Your task to perform on an android device: turn smart compose on in the gmail app Image 0: 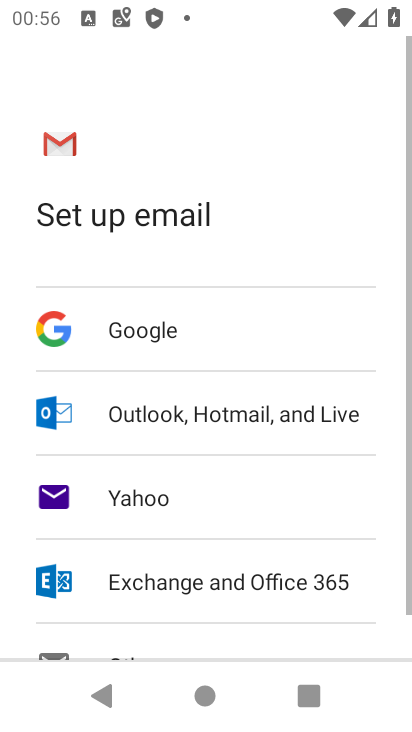
Step 0: press home button
Your task to perform on an android device: turn smart compose on in the gmail app Image 1: 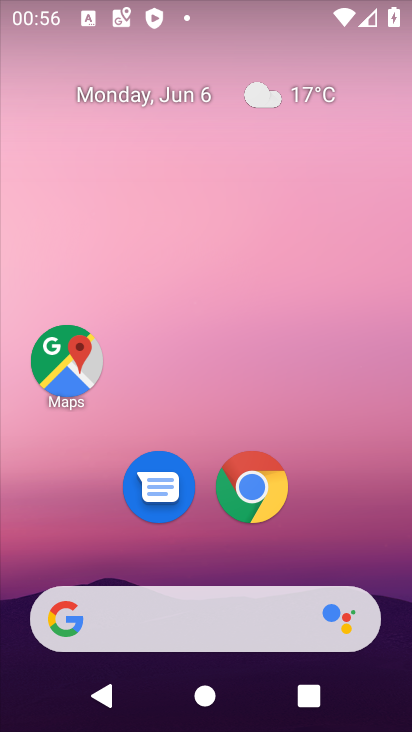
Step 1: drag from (397, 608) to (353, 113)
Your task to perform on an android device: turn smart compose on in the gmail app Image 2: 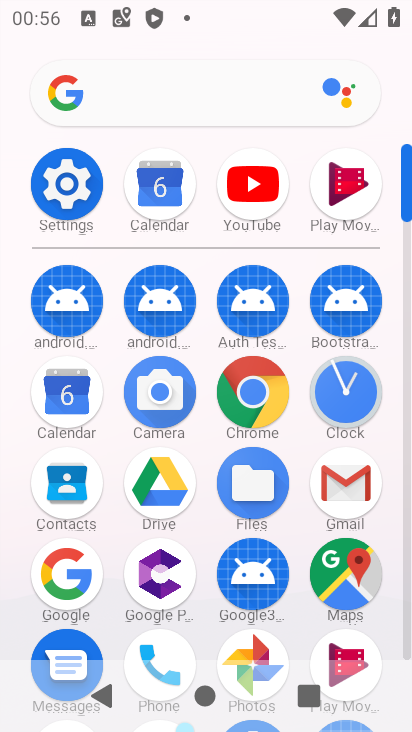
Step 2: click (405, 616)
Your task to perform on an android device: turn smart compose on in the gmail app Image 3: 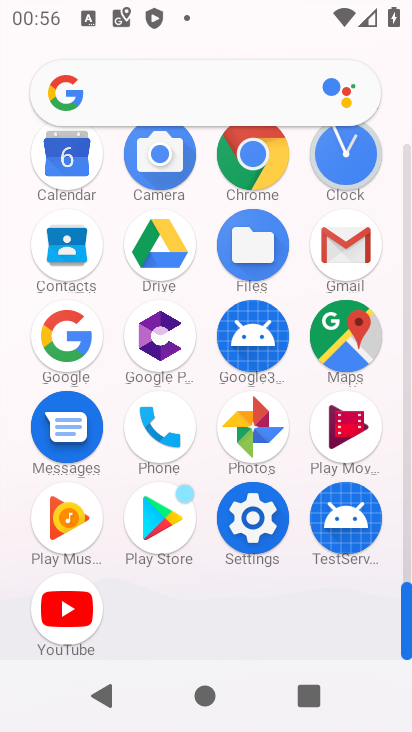
Step 3: click (346, 241)
Your task to perform on an android device: turn smart compose on in the gmail app Image 4: 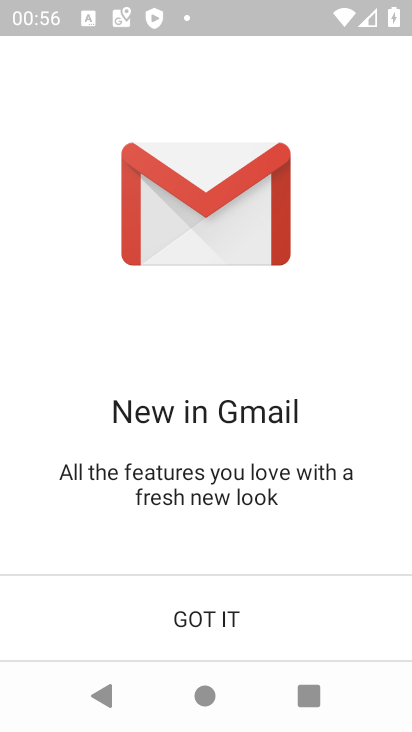
Step 4: click (223, 630)
Your task to perform on an android device: turn smart compose on in the gmail app Image 5: 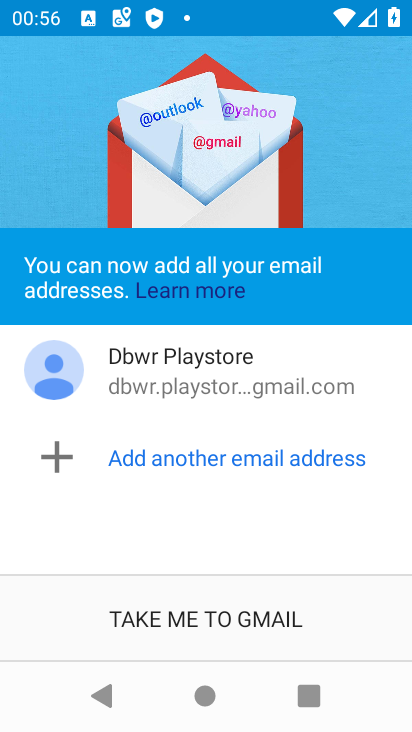
Step 5: click (223, 630)
Your task to perform on an android device: turn smart compose on in the gmail app Image 6: 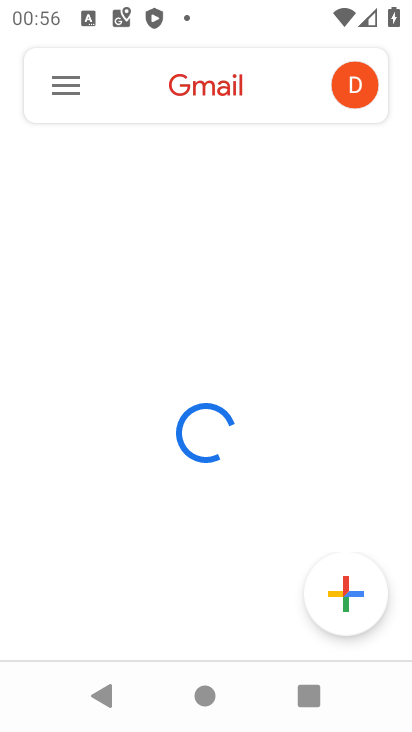
Step 6: click (60, 82)
Your task to perform on an android device: turn smart compose on in the gmail app Image 7: 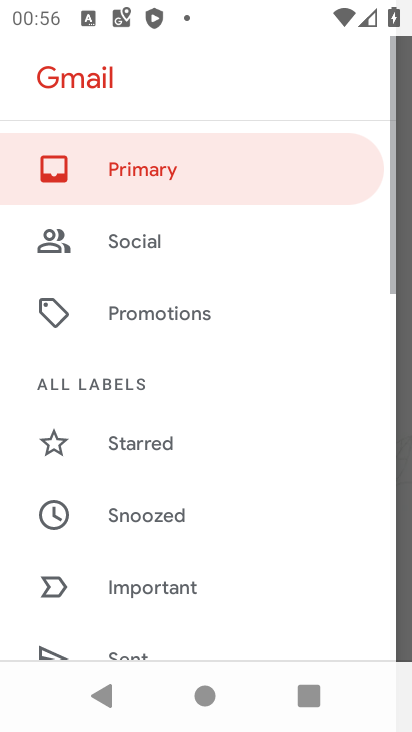
Step 7: drag from (233, 554) to (243, 192)
Your task to perform on an android device: turn smart compose on in the gmail app Image 8: 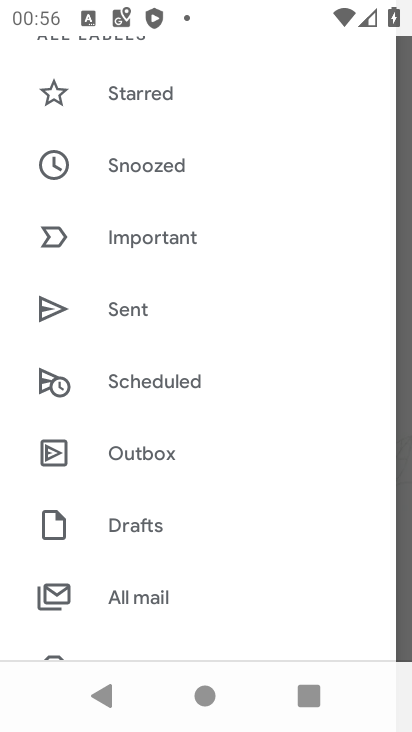
Step 8: drag from (253, 577) to (201, 89)
Your task to perform on an android device: turn smart compose on in the gmail app Image 9: 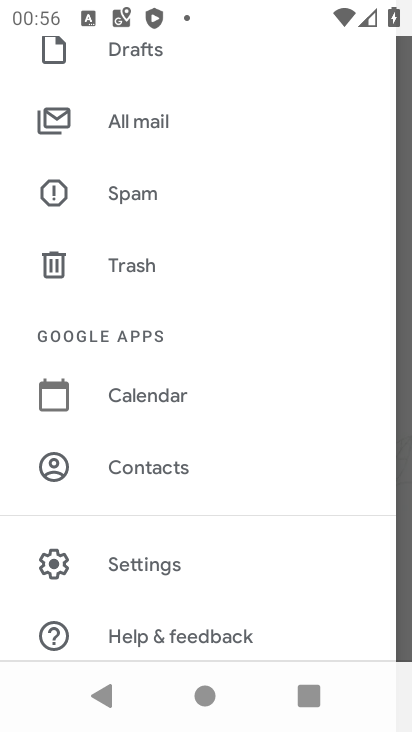
Step 9: click (153, 565)
Your task to perform on an android device: turn smart compose on in the gmail app Image 10: 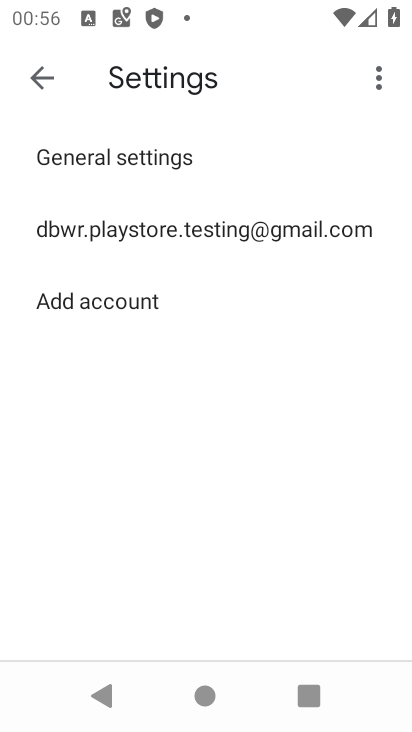
Step 10: click (156, 228)
Your task to perform on an android device: turn smart compose on in the gmail app Image 11: 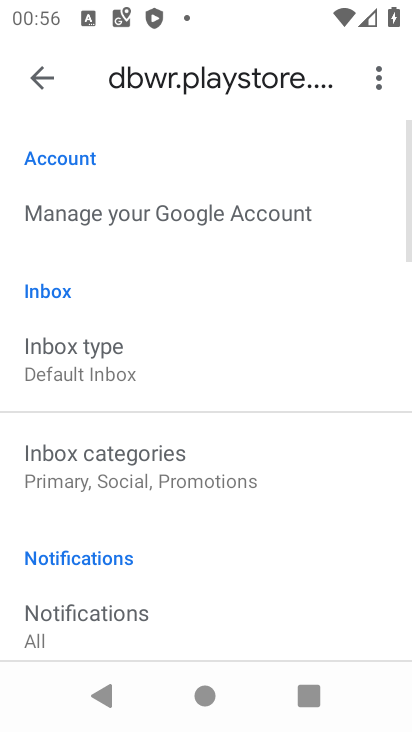
Step 11: task complete